Your task to perform on an android device: turn notification dots on Image 0: 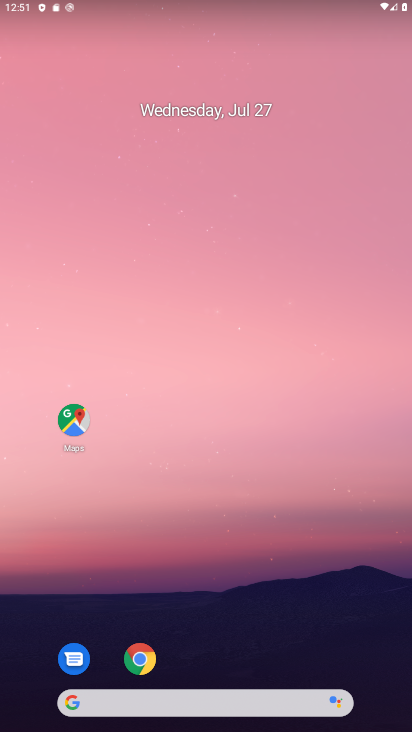
Step 0: drag from (208, 483) to (217, 23)
Your task to perform on an android device: turn notification dots on Image 1: 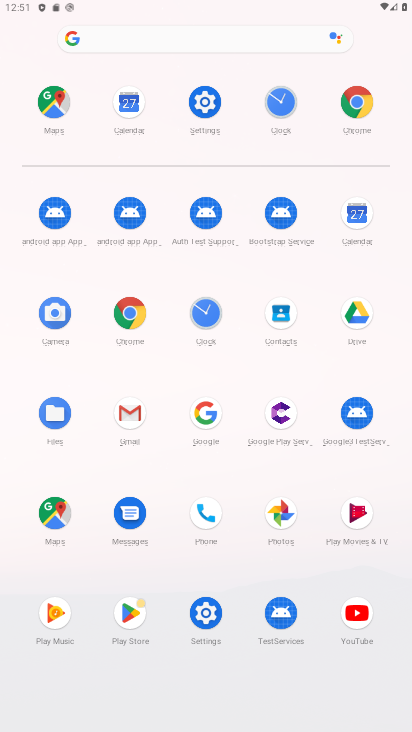
Step 1: click (203, 105)
Your task to perform on an android device: turn notification dots on Image 2: 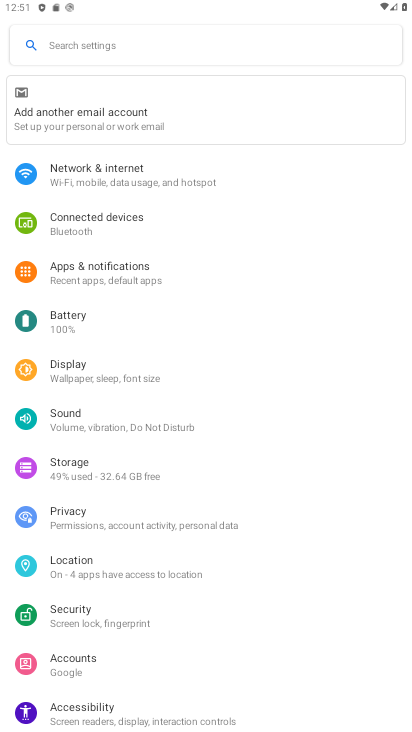
Step 2: click (128, 269)
Your task to perform on an android device: turn notification dots on Image 3: 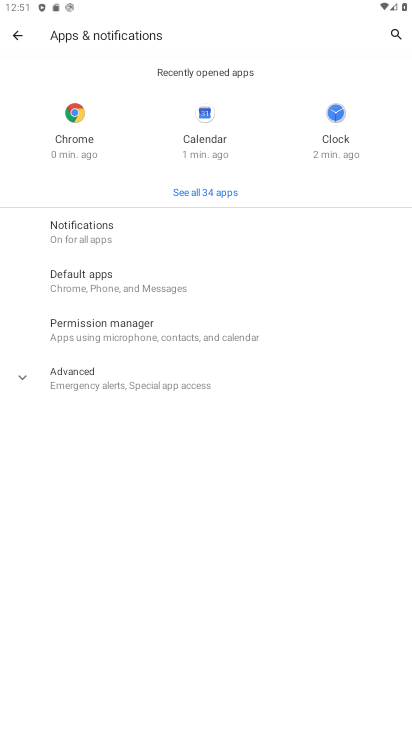
Step 3: click (99, 222)
Your task to perform on an android device: turn notification dots on Image 4: 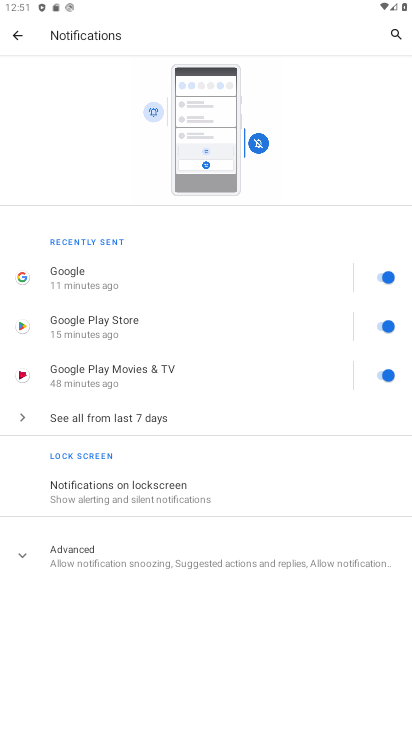
Step 4: click (152, 554)
Your task to perform on an android device: turn notification dots on Image 5: 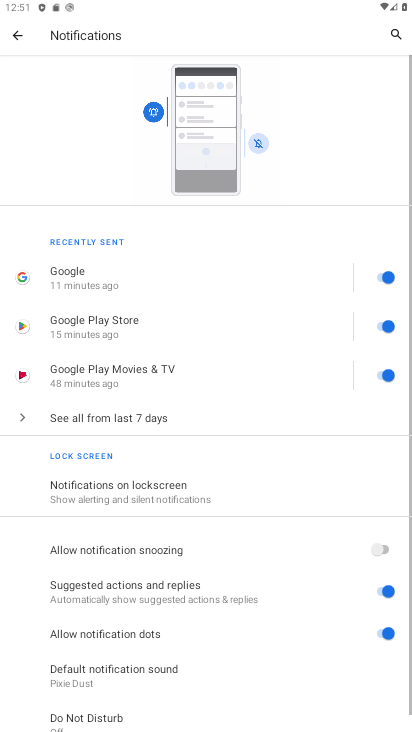
Step 5: task complete